Your task to perform on an android device: Show me the alarms in the clock app Image 0: 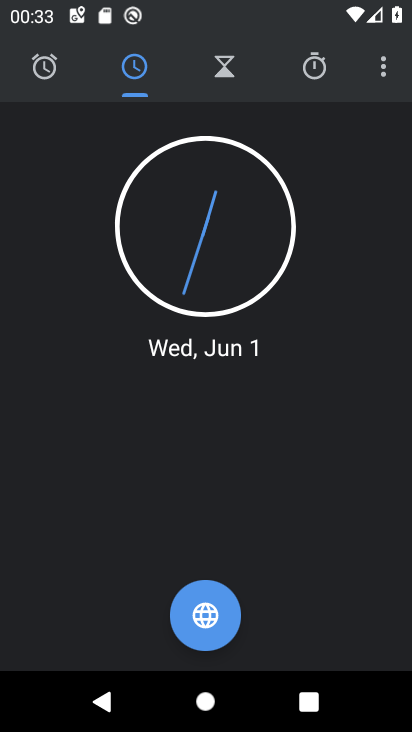
Step 0: click (41, 66)
Your task to perform on an android device: Show me the alarms in the clock app Image 1: 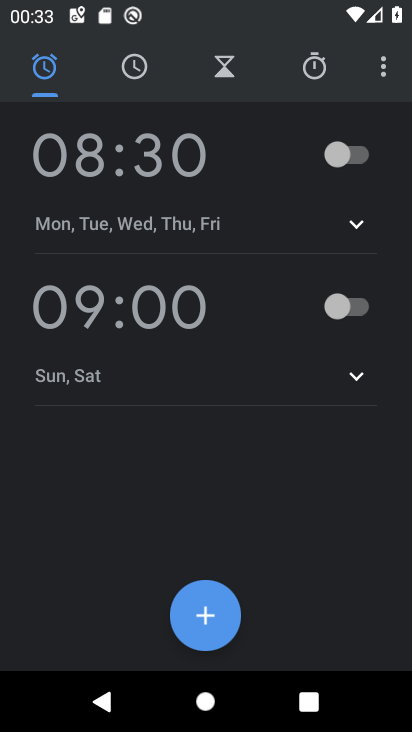
Step 1: task complete